Your task to perform on an android device: check android version Image 0: 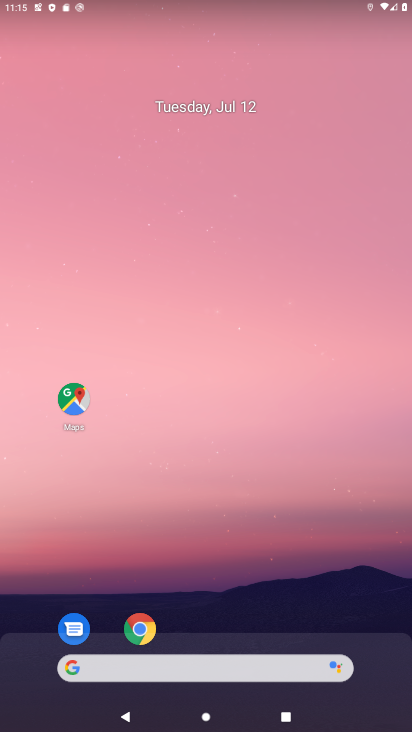
Step 0: press home button
Your task to perform on an android device: check android version Image 1: 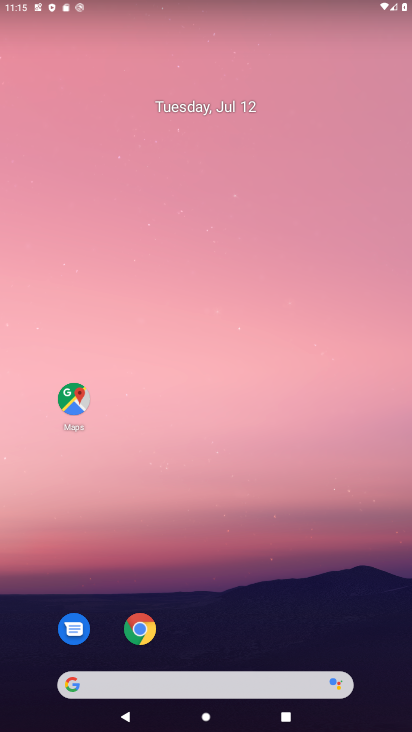
Step 1: drag from (208, 649) to (209, 42)
Your task to perform on an android device: check android version Image 2: 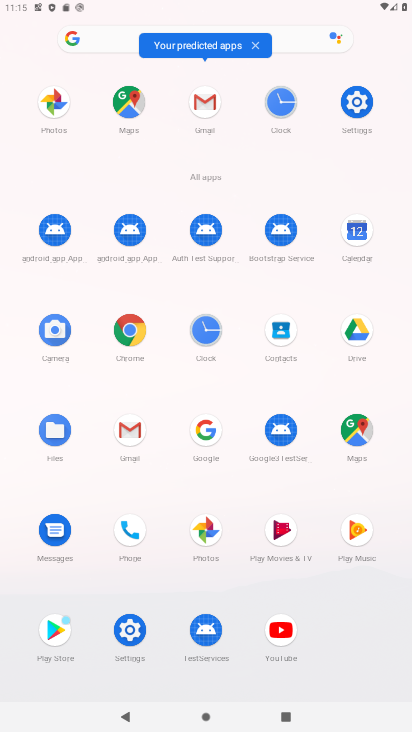
Step 2: click (357, 99)
Your task to perform on an android device: check android version Image 3: 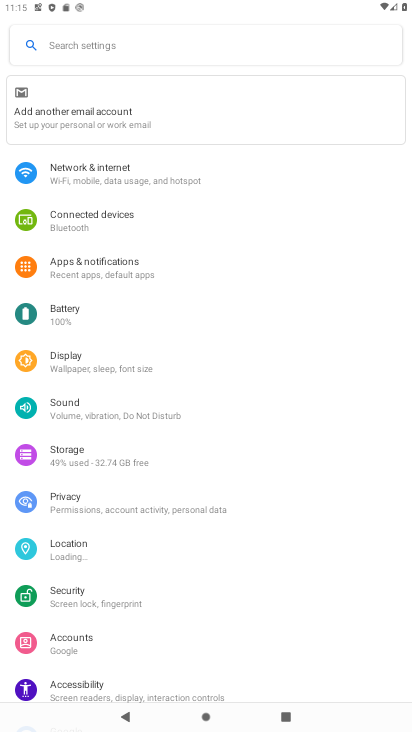
Step 3: drag from (186, 672) to (177, 110)
Your task to perform on an android device: check android version Image 4: 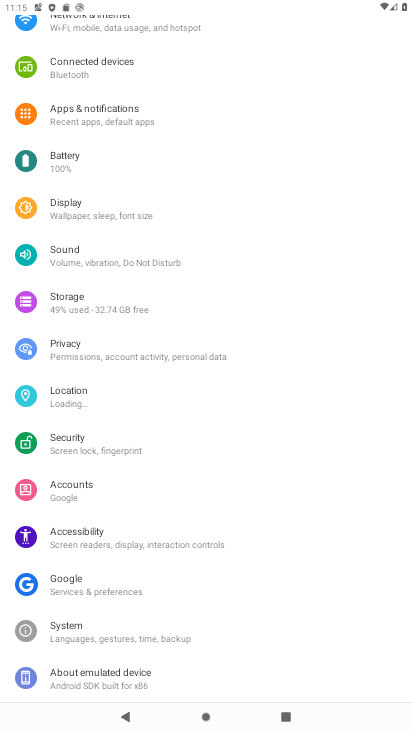
Step 4: click (160, 679)
Your task to perform on an android device: check android version Image 5: 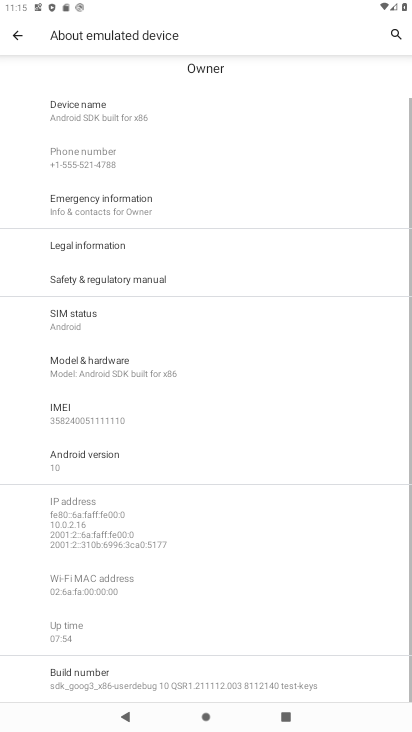
Step 5: click (110, 459)
Your task to perform on an android device: check android version Image 6: 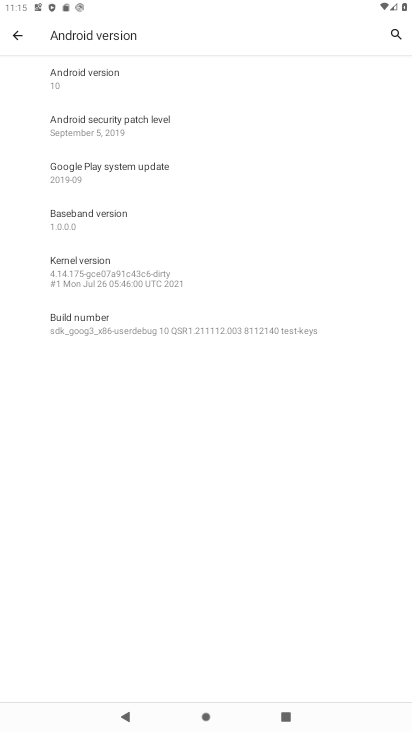
Step 6: click (96, 75)
Your task to perform on an android device: check android version Image 7: 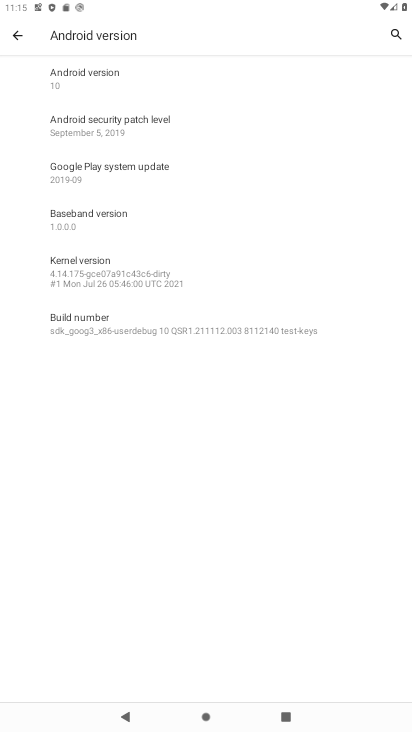
Step 7: task complete